Your task to perform on an android device: toggle wifi Image 0: 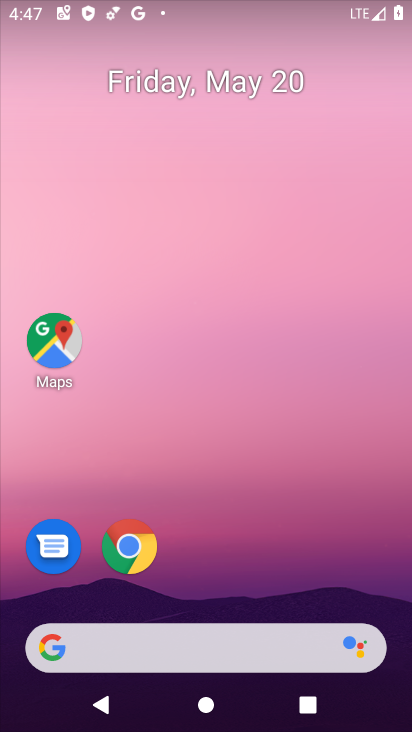
Step 0: drag from (238, 567) to (217, 52)
Your task to perform on an android device: toggle wifi Image 1: 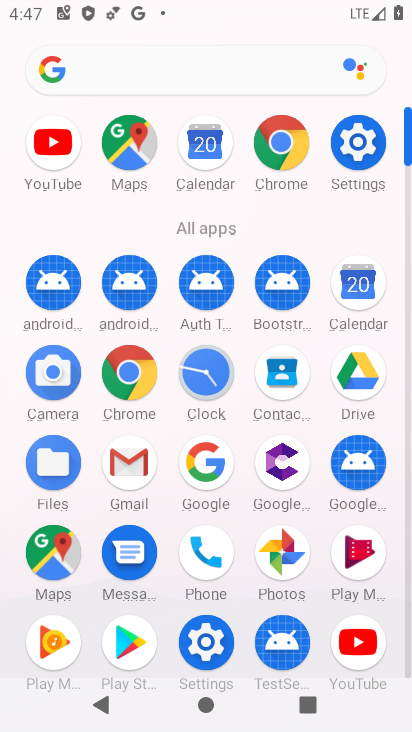
Step 1: click (358, 143)
Your task to perform on an android device: toggle wifi Image 2: 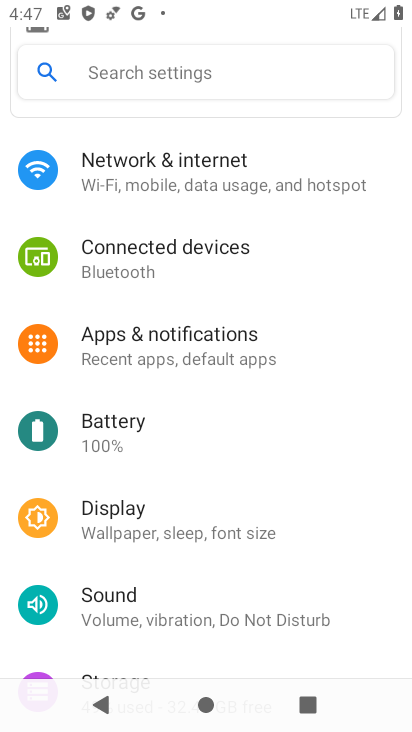
Step 2: click (194, 189)
Your task to perform on an android device: toggle wifi Image 3: 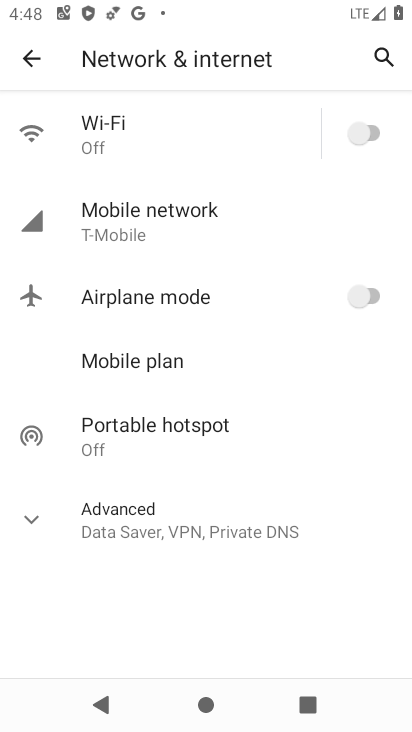
Step 3: click (380, 130)
Your task to perform on an android device: toggle wifi Image 4: 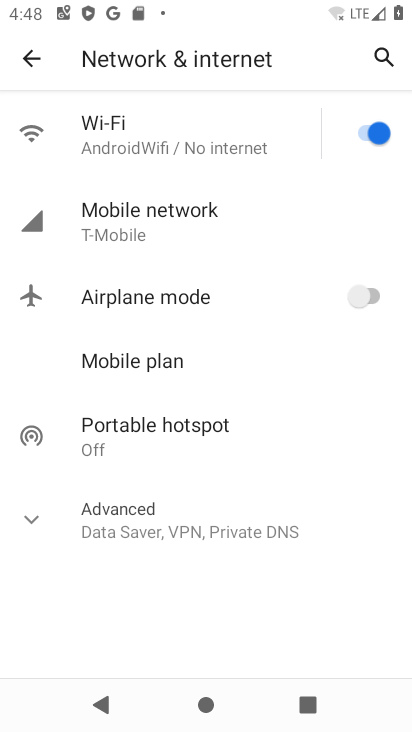
Step 4: task complete